Your task to perform on an android device: find photos in the google photos app Image 0: 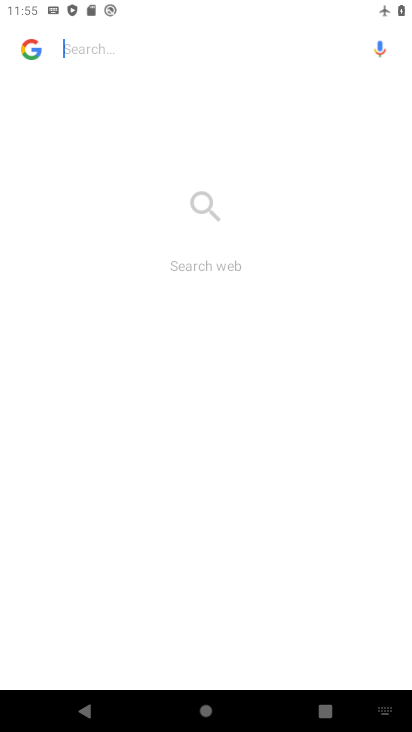
Step 0: press home button
Your task to perform on an android device: find photos in the google photos app Image 1: 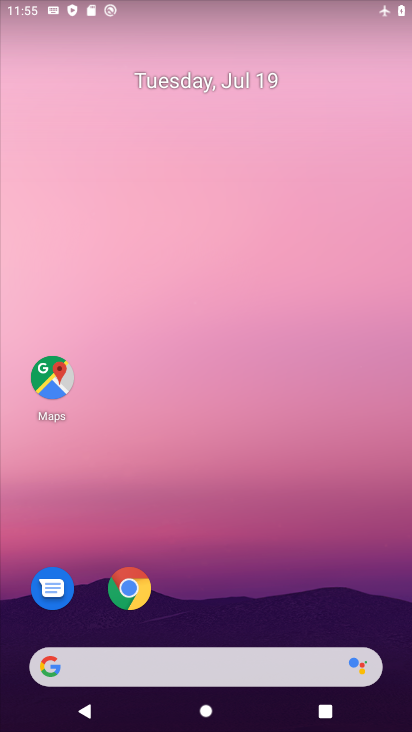
Step 1: drag from (182, 612) to (175, 85)
Your task to perform on an android device: find photos in the google photos app Image 2: 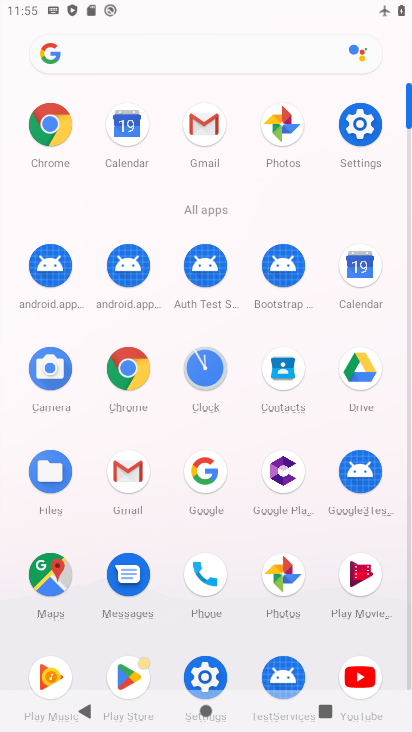
Step 2: click (272, 559)
Your task to perform on an android device: find photos in the google photos app Image 3: 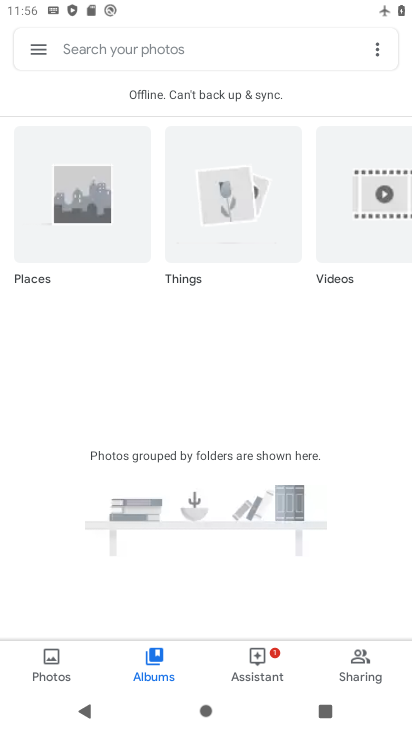
Step 3: click (154, 651)
Your task to perform on an android device: find photos in the google photos app Image 4: 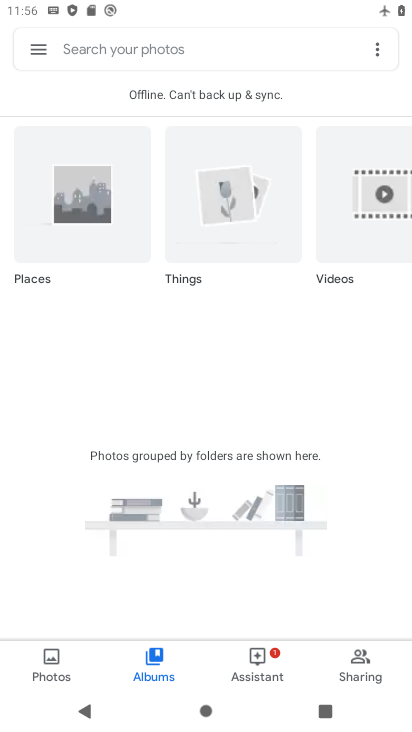
Step 4: task complete